Your task to perform on an android device: check battery use Image 0: 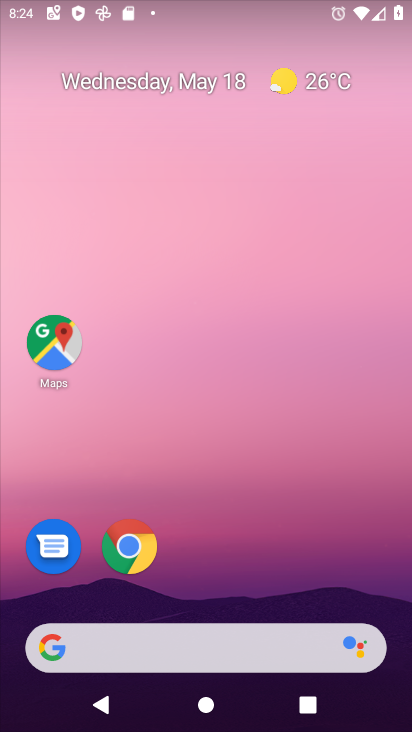
Step 0: drag from (396, 612) to (291, 117)
Your task to perform on an android device: check battery use Image 1: 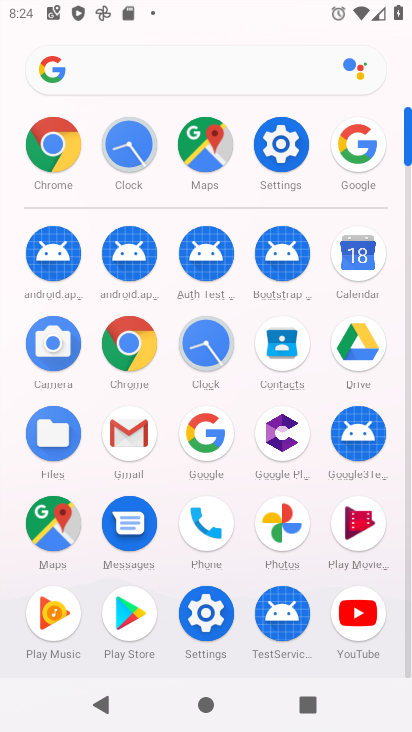
Step 1: click (228, 618)
Your task to perform on an android device: check battery use Image 2: 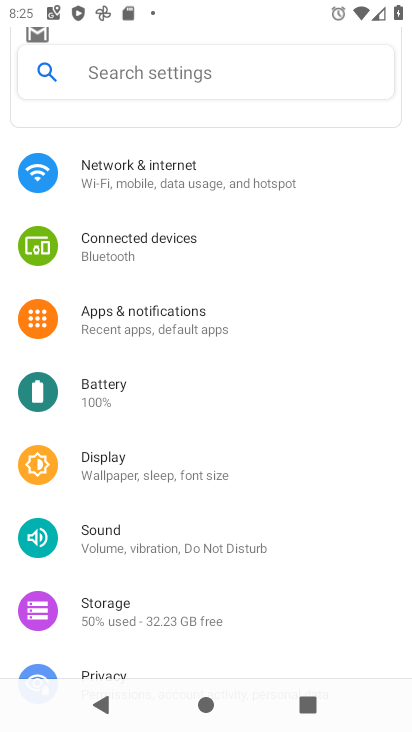
Step 2: click (223, 389)
Your task to perform on an android device: check battery use Image 3: 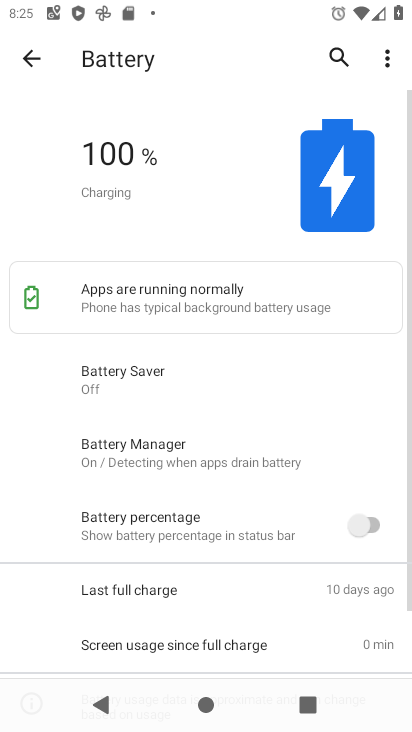
Step 3: task complete